Your task to perform on an android device: Clear all items from cart on amazon.com. Search for "razer kraken" on amazon.com, select the first entry, add it to the cart, then select checkout. Image 0: 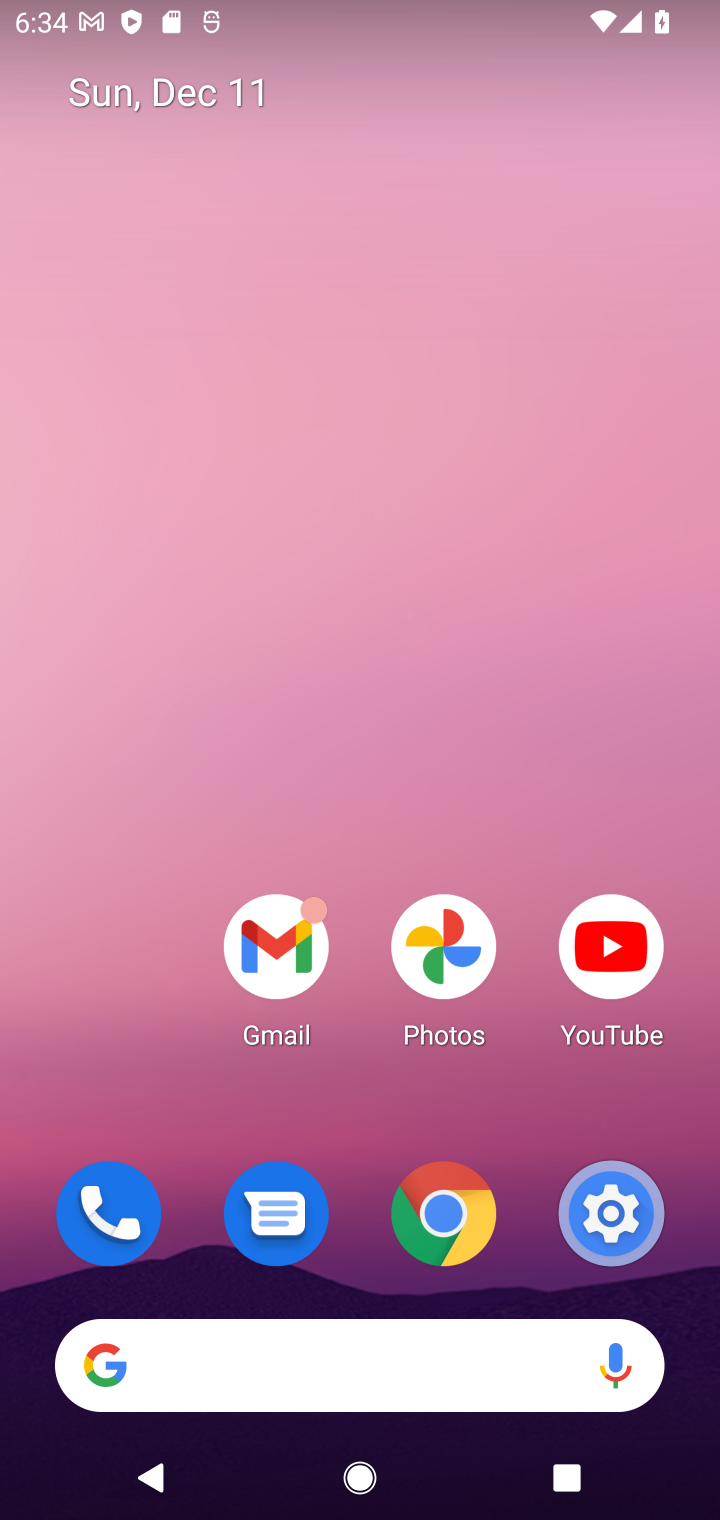
Step 0: click (386, 1354)
Your task to perform on an android device: Clear all items from cart on amazon.com. Search for "razer kraken" on amazon.com, select the first entry, add it to the cart, then select checkout. Image 1: 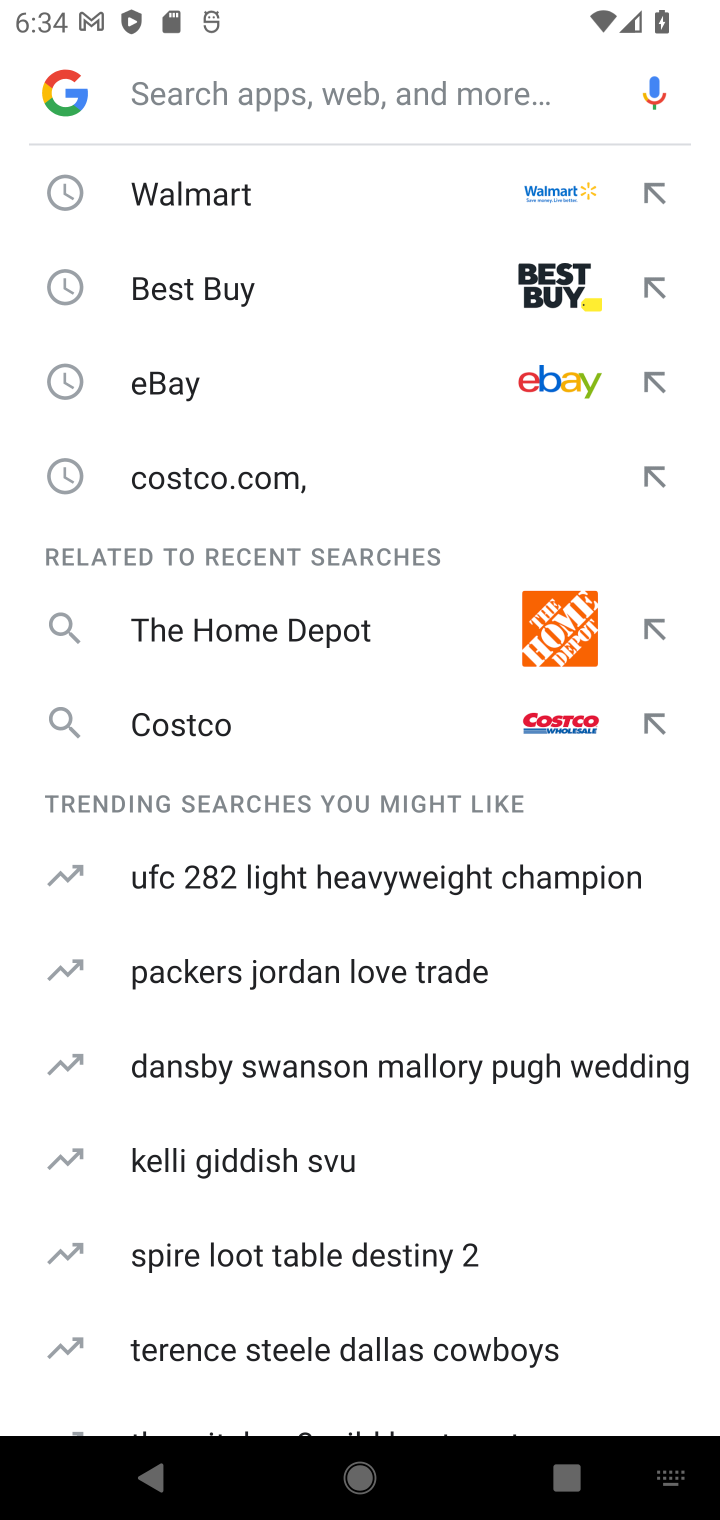
Step 1: type "amazon"
Your task to perform on an android device: Clear all items from cart on amazon.com. Search for "razer kraken" on amazon.com, select the first entry, add it to the cart, then select checkout. Image 2: 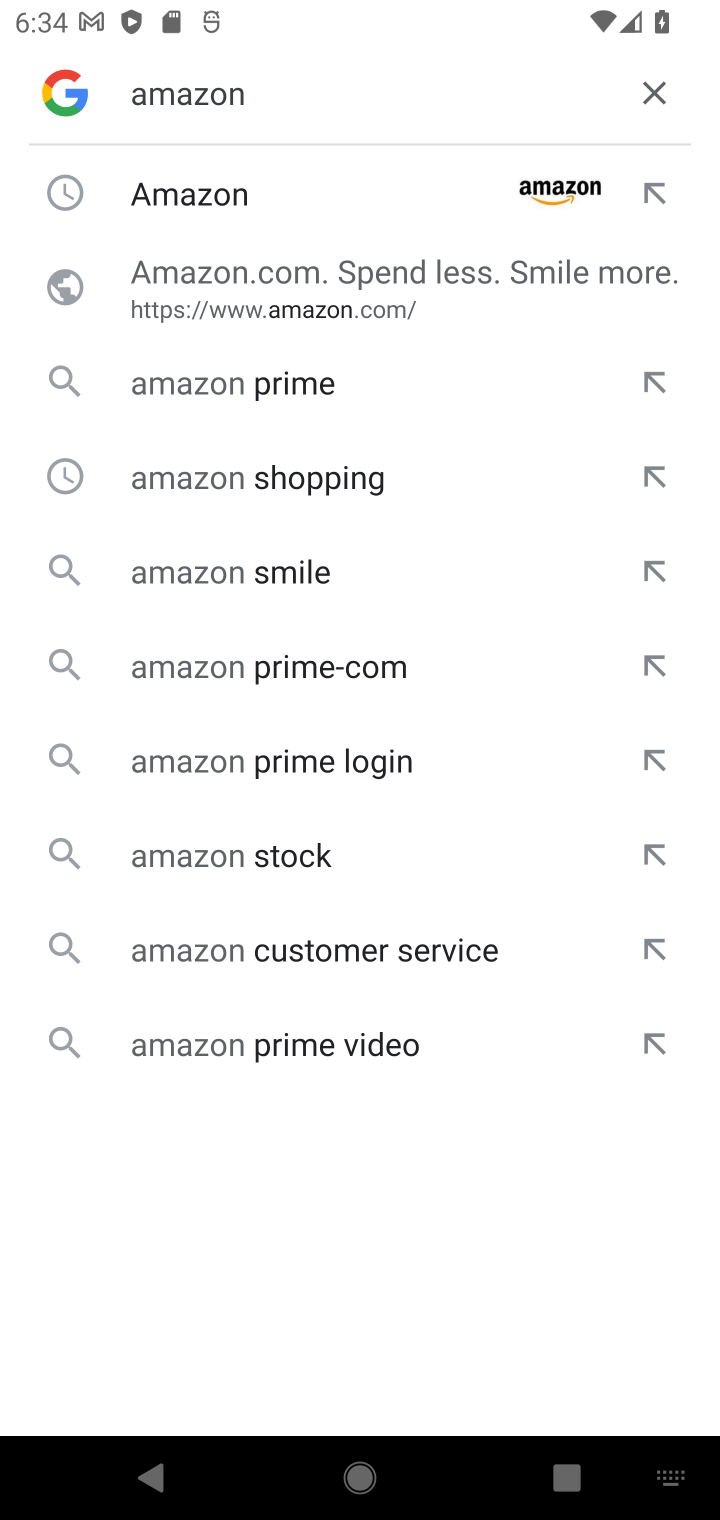
Step 2: click (243, 176)
Your task to perform on an android device: Clear all items from cart on amazon.com. Search for "razer kraken" on amazon.com, select the first entry, add it to the cart, then select checkout. Image 3: 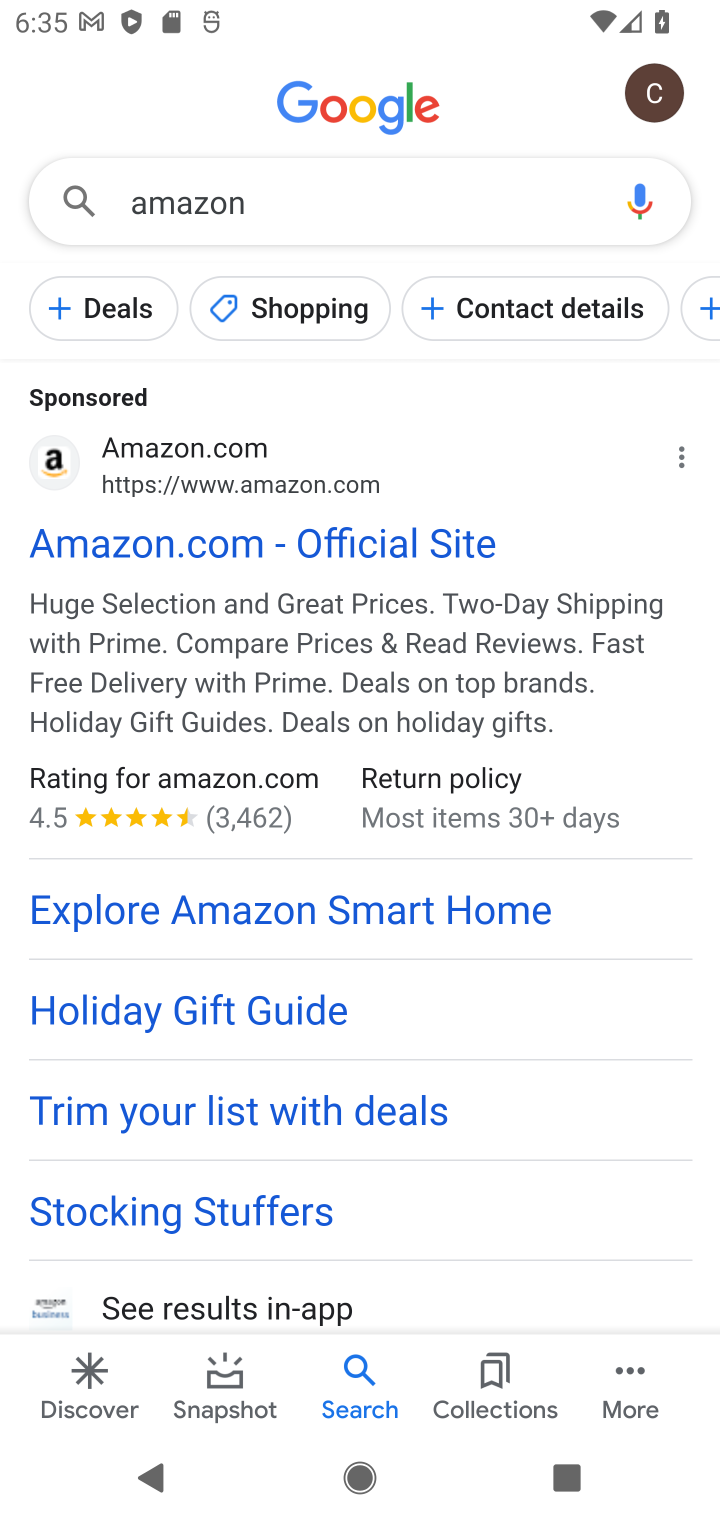
Step 3: click (231, 527)
Your task to perform on an android device: Clear all items from cart on amazon.com. Search for "razer kraken" on amazon.com, select the first entry, add it to the cart, then select checkout. Image 4: 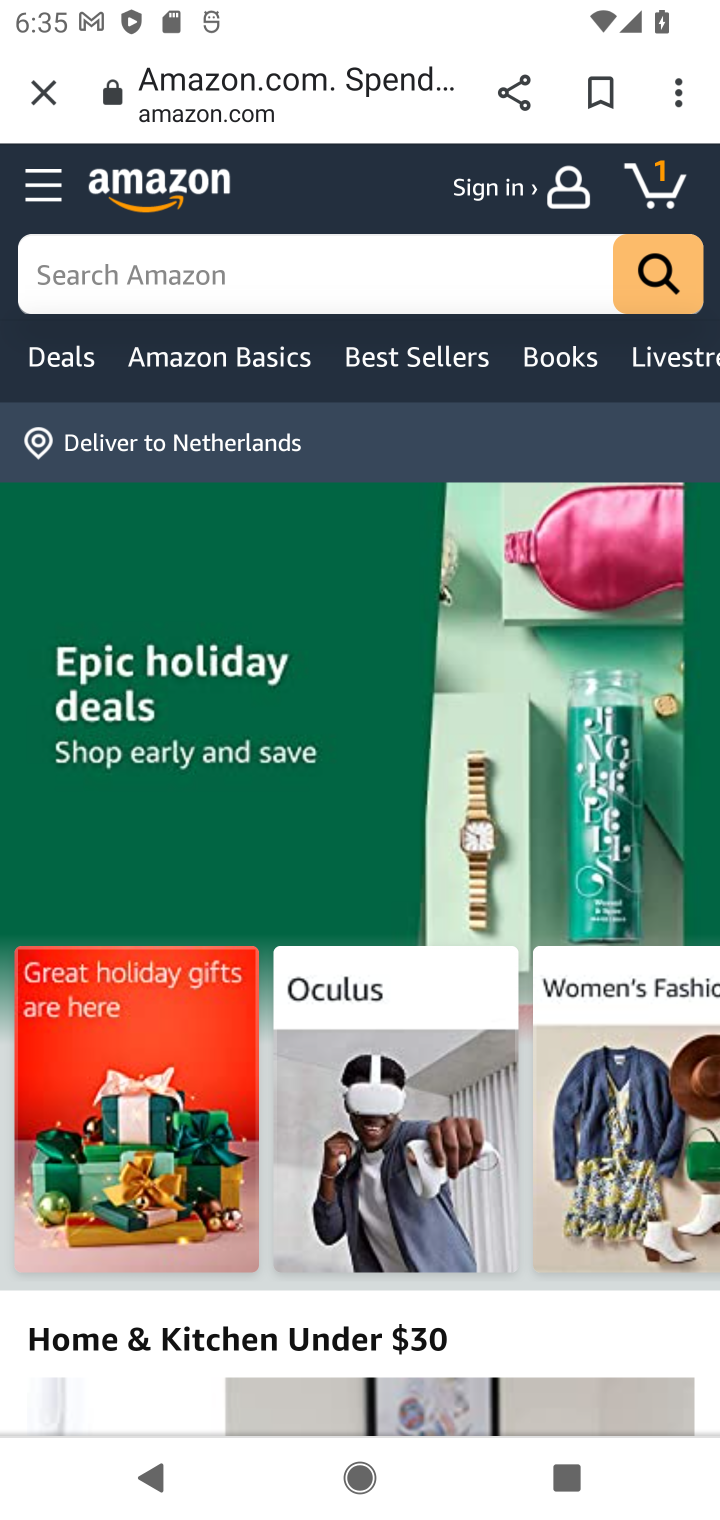
Step 4: click (467, 278)
Your task to perform on an android device: Clear all items from cart on amazon.com. Search for "razer kraken" on amazon.com, select the first entry, add it to the cart, then select checkout. Image 5: 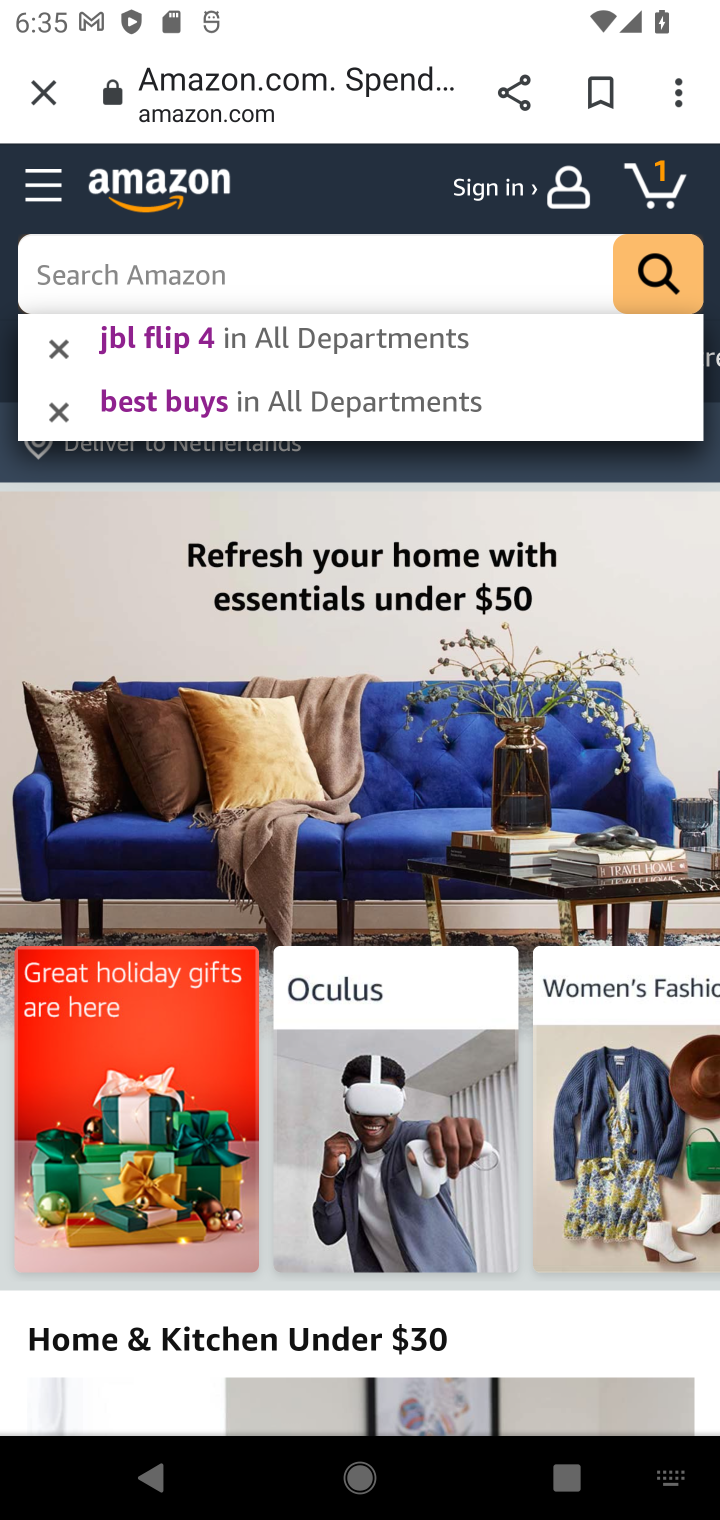
Step 5: type "razer karken"
Your task to perform on an android device: Clear all items from cart on amazon.com. Search for "razer kraken" on amazon.com, select the first entry, add it to the cart, then select checkout. Image 6: 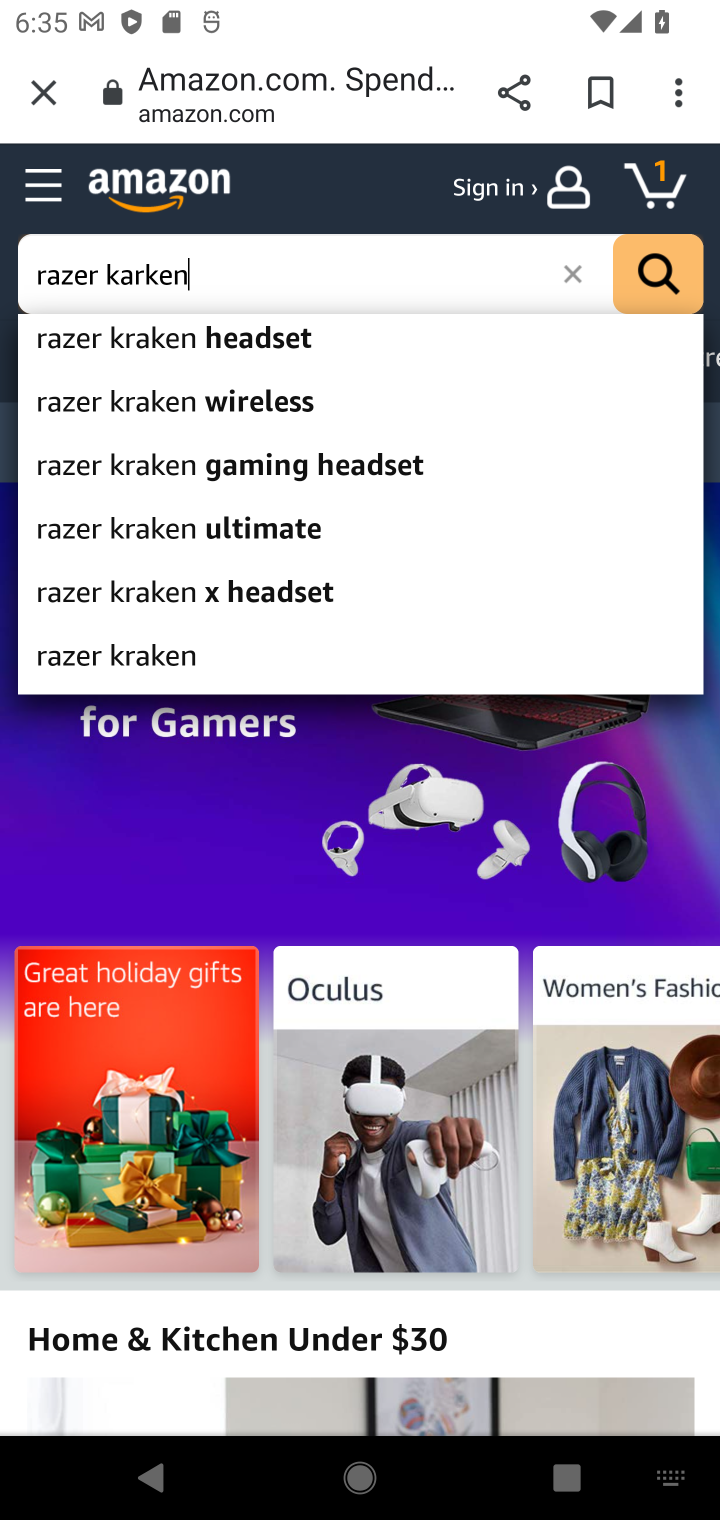
Step 6: click (180, 361)
Your task to perform on an android device: Clear all items from cart on amazon.com. Search for "razer kraken" on amazon.com, select the first entry, add it to the cart, then select checkout. Image 7: 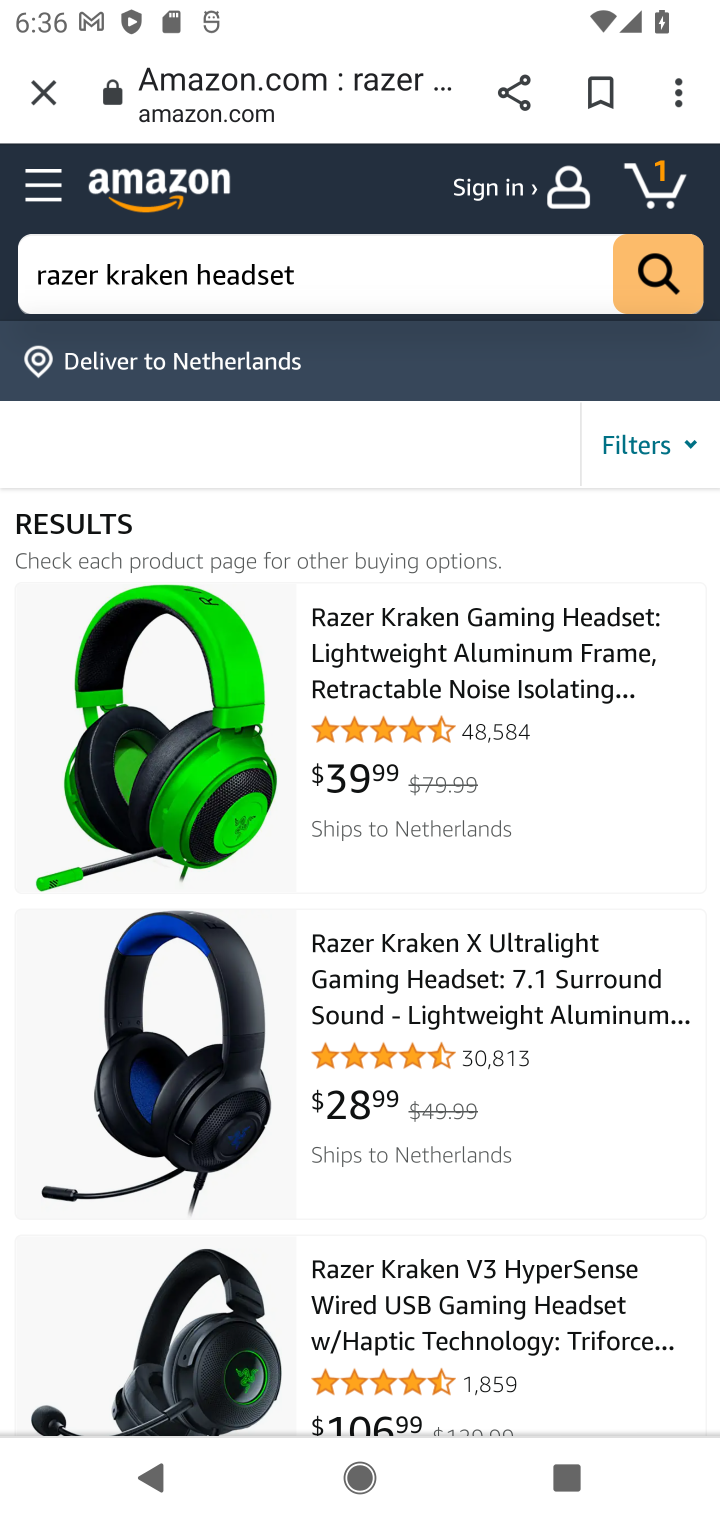
Step 7: click (366, 630)
Your task to perform on an android device: Clear all items from cart on amazon.com. Search for "razer kraken" on amazon.com, select the first entry, add it to the cart, then select checkout. Image 8: 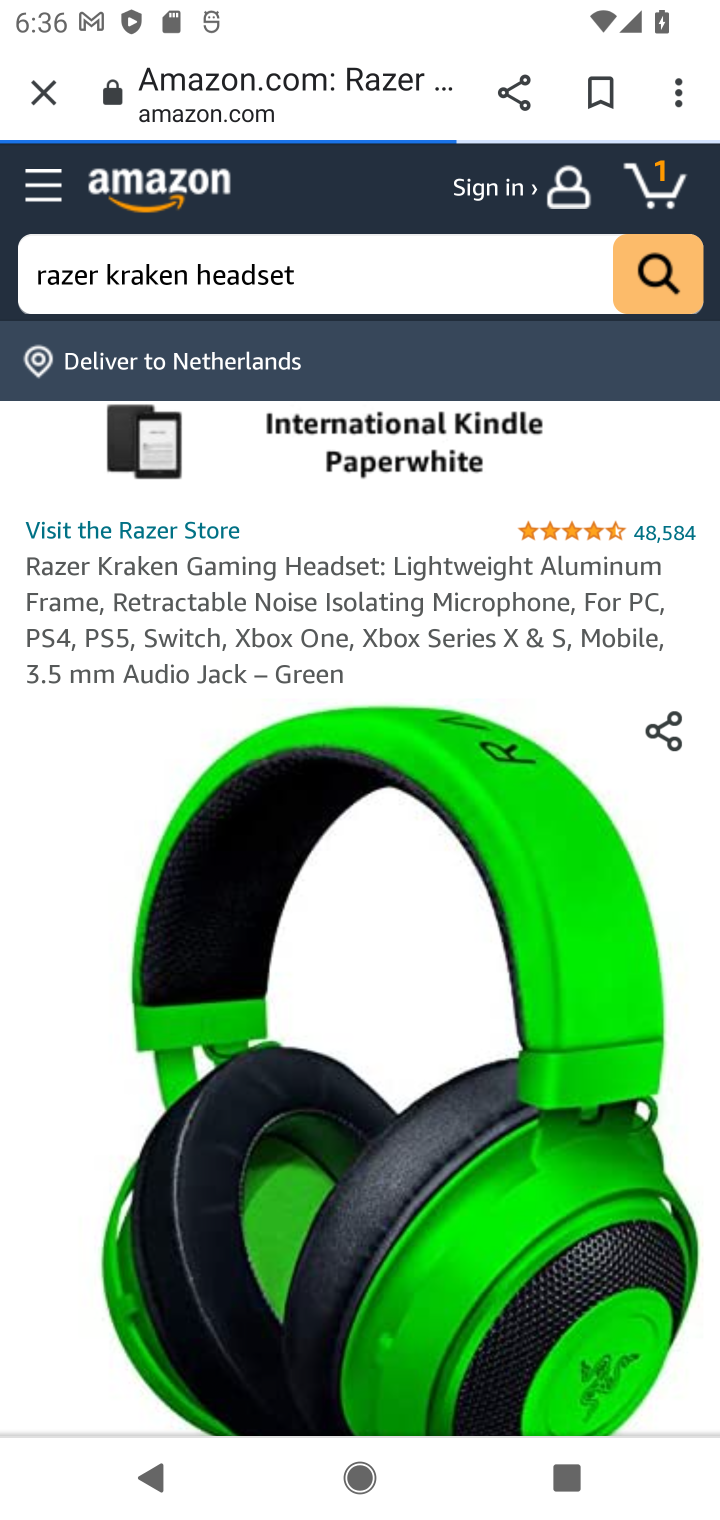
Step 8: drag from (438, 1200) to (401, 145)
Your task to perform on an android device: Clear all items from cart on amazon.com. Search for "razer kraken" on amazon.com, select the first entry, add it to the cart, then select checkout. Image 9: 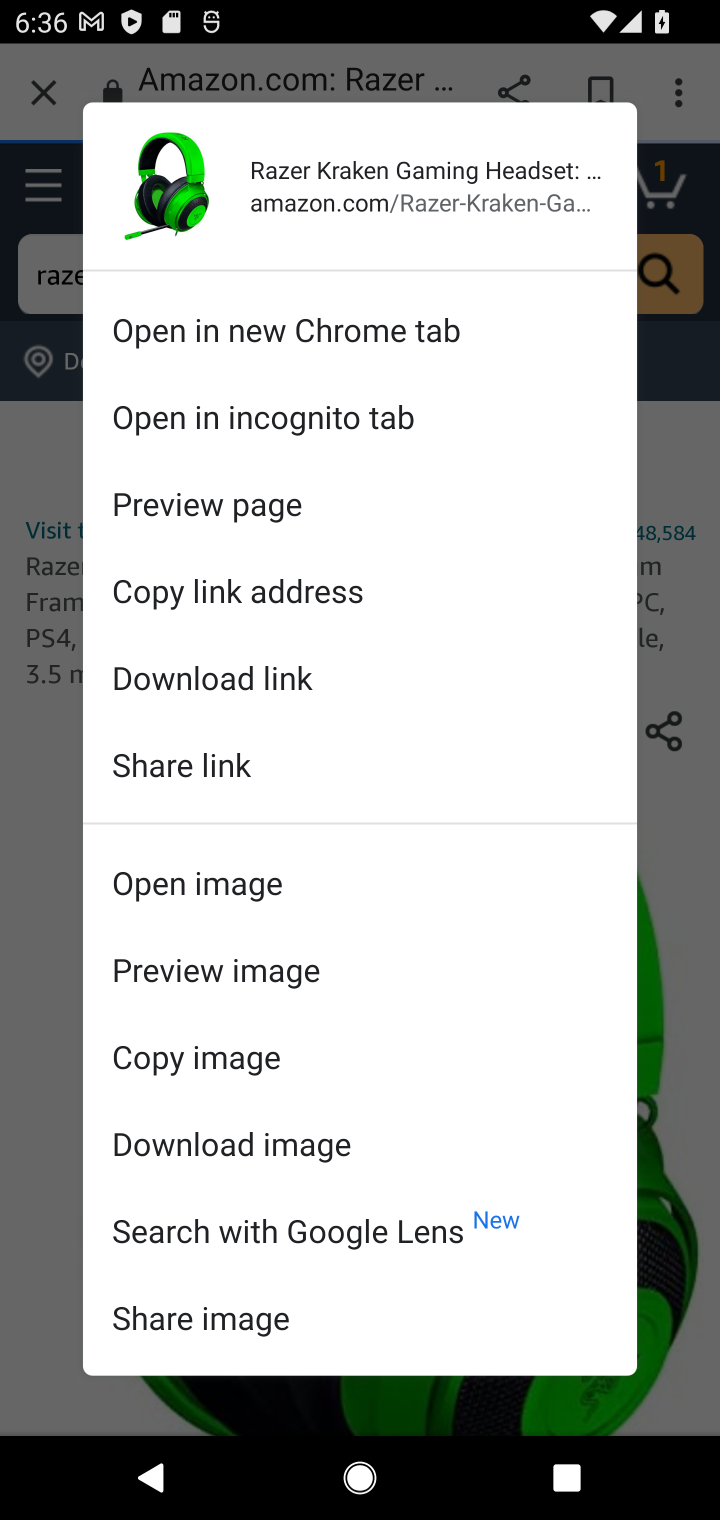
Step 9: click (681, 833)
Your task to perform on an android device: Clear all items from cart on amazon.com. Search for "razer kraken" on amazon.com, select the first entry, add it to the cart, then select checkout. Image 10: 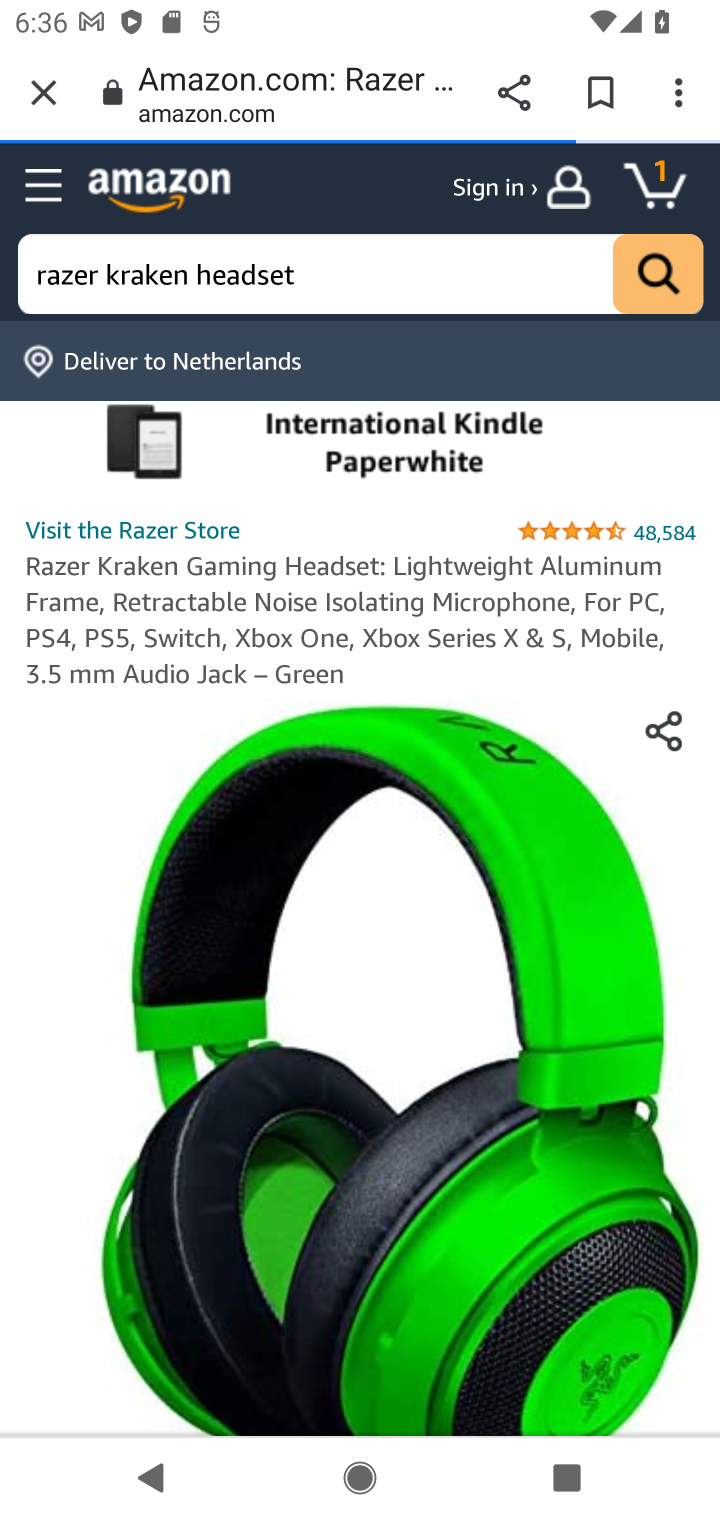
Step 10: drag from (396, 1268) to (303, 255)
Your task to perform on an android device: Clear all items from cart on amazon.com. Search for "razer kraken" on amazon.com, select the first entry, add it to the cart, then select checkout. Image 11: 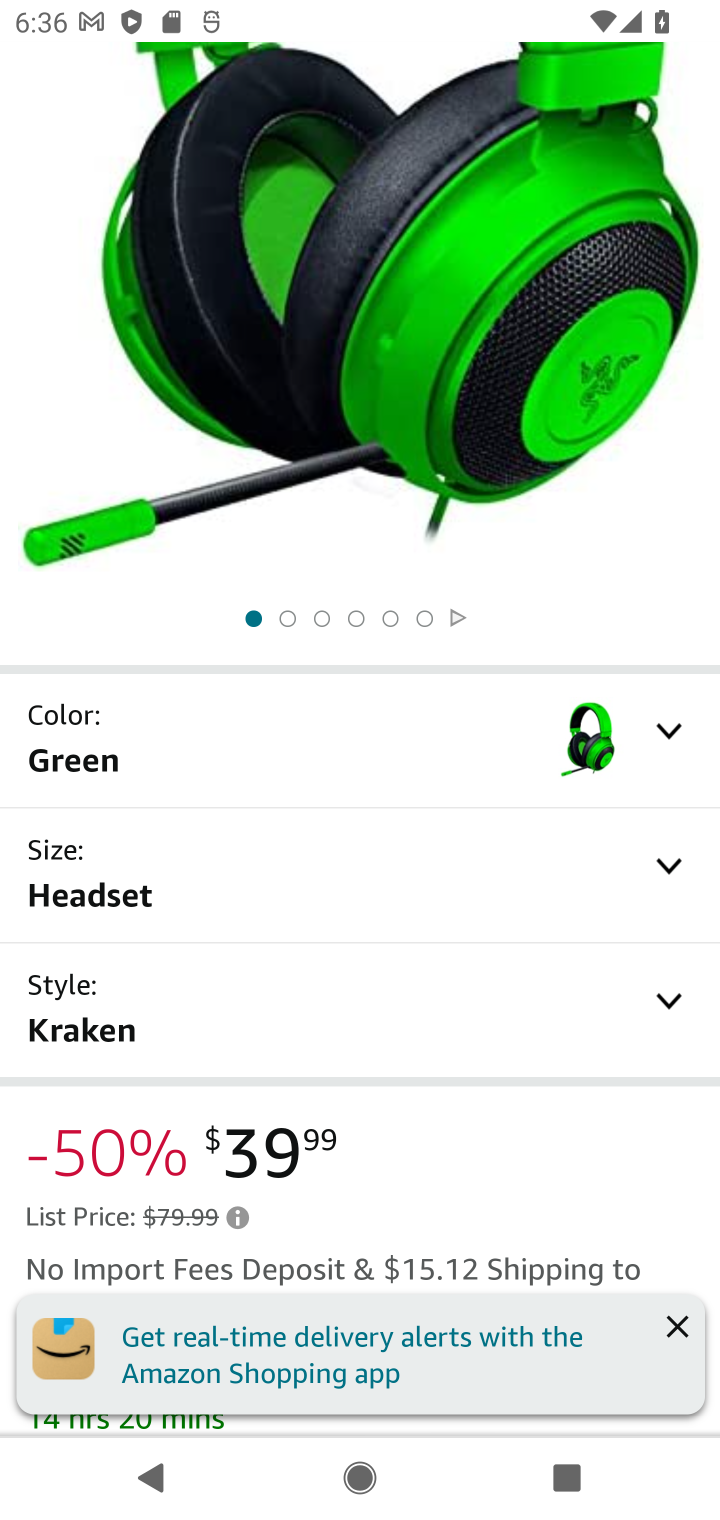
Step 11: drag from (439, 1143) to (379, 814)
Your task to perform on an android device: Clear all items from cart on amazon.com. Search for "razer kraken" on amazon.com, select the first entry, add it to the cart, then select checkout. Image 12: 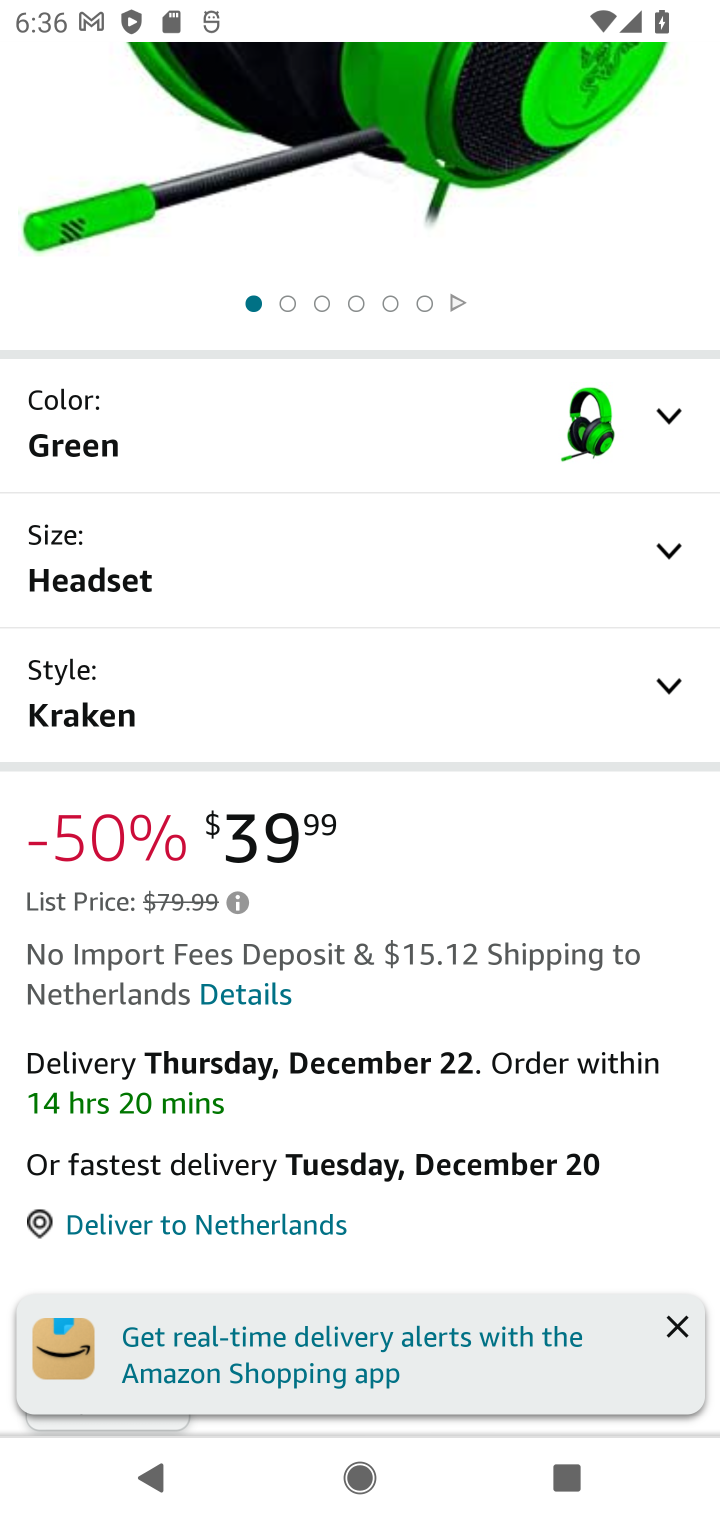
Step 12: drag from (480, 1175) to (338, 137)
Your task to perform on an android device: Clear all items from cart on amazon.com. Search for "razer kraken" on amazon.com, select the first entry, add it to the cart, then select checkout. Image 13: 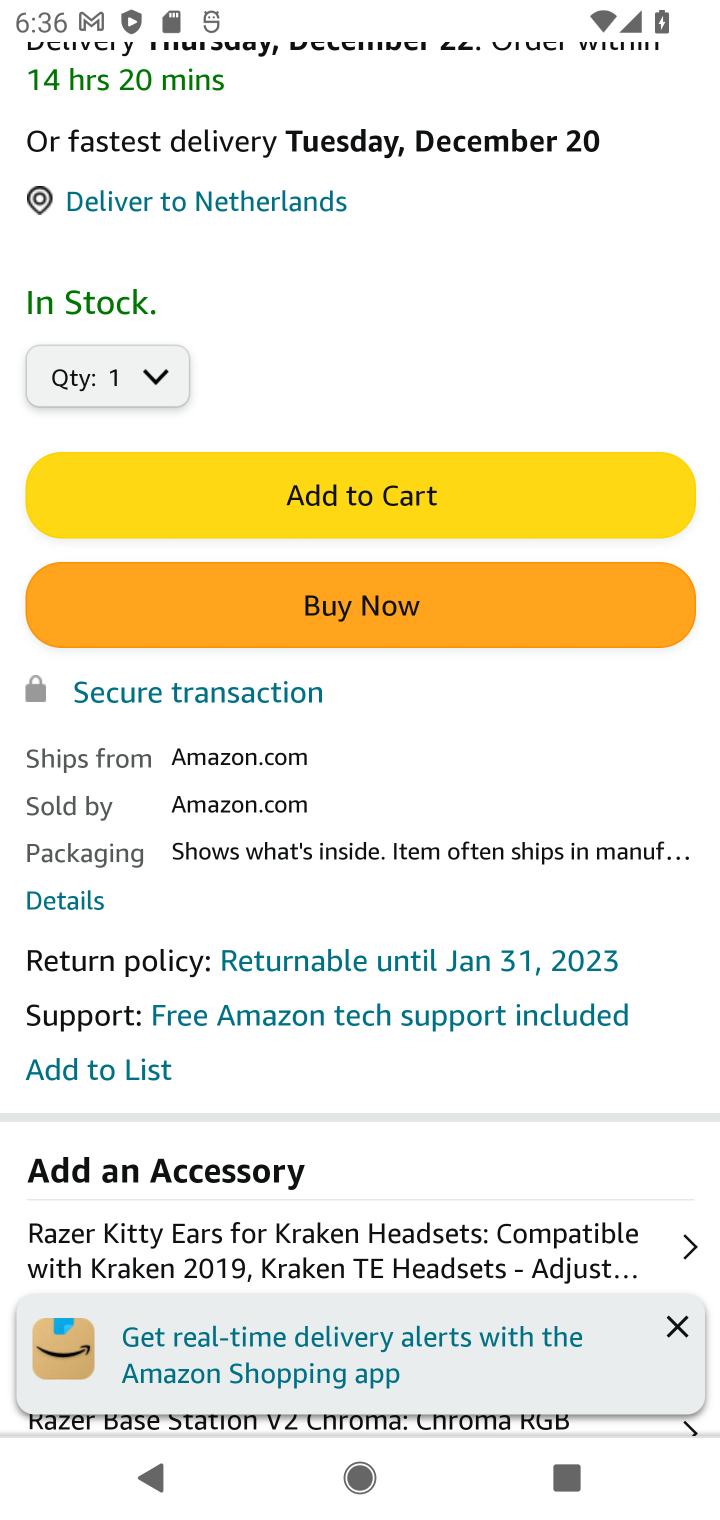
Step 13: click (408, 466)
Your task to perform on an android device: Clear all items from cart on amazon.com. Search for "razer kraken" on amazon.com, select the first entry, add it to the cart, then select checkout. Image 14: 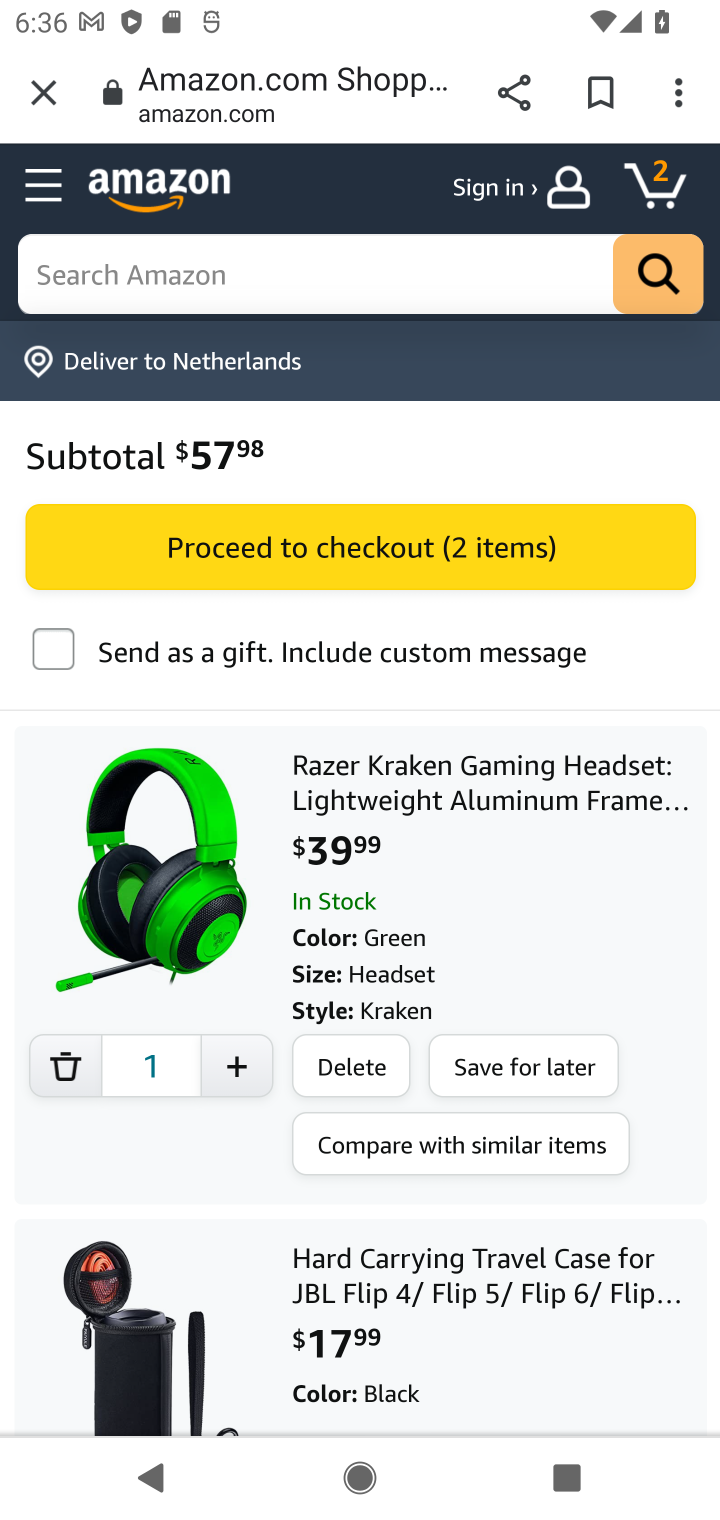
Step 14: task complete